Your task to perform on an android device: Go to Wikipedia Image 0: 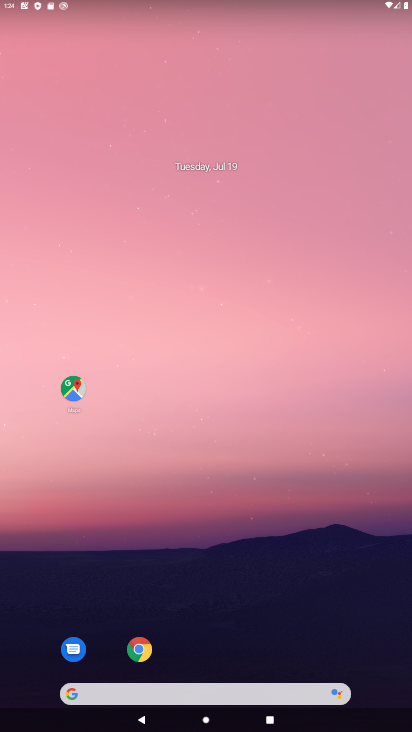
Step 0: click (254, 695)
Your task to perform on an android device: Go to Wikipedia Image 1: 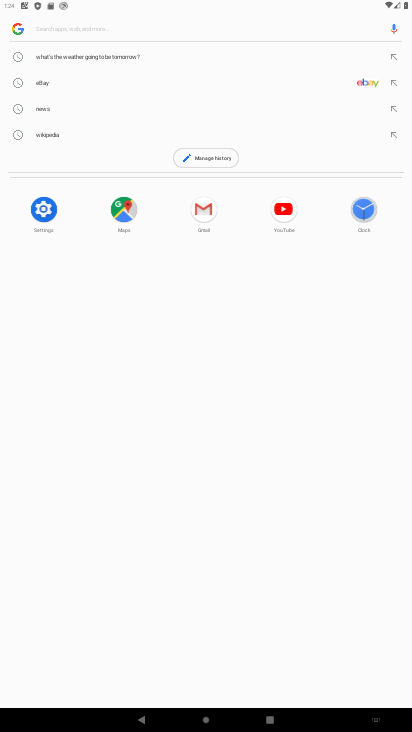
Step 1: type "Wikipedia"
Your task to perform on an android device: Go to Wikipedia Image 2: 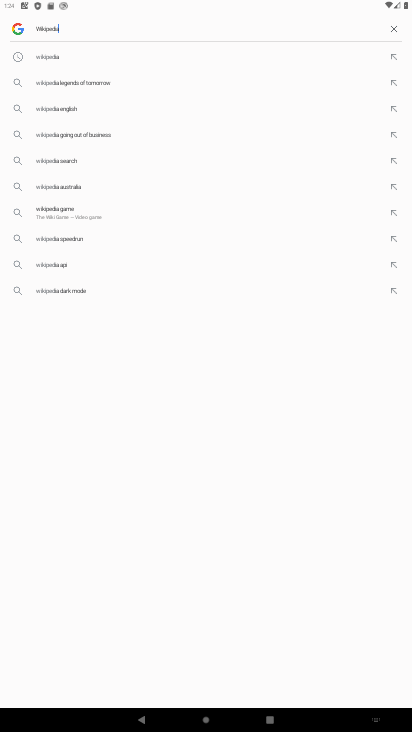
Step 2: press enter
Your task to perform on an android device: Go to Wikipedia Image 3: 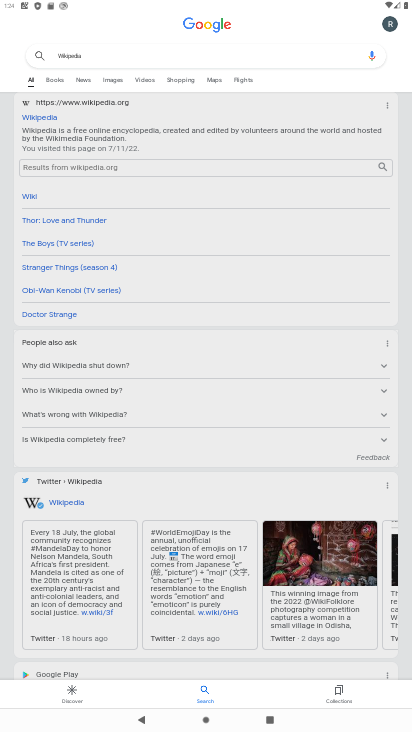
Step 3: task complete